Your task to perform on an android device: turn on sleep mode Image 0: 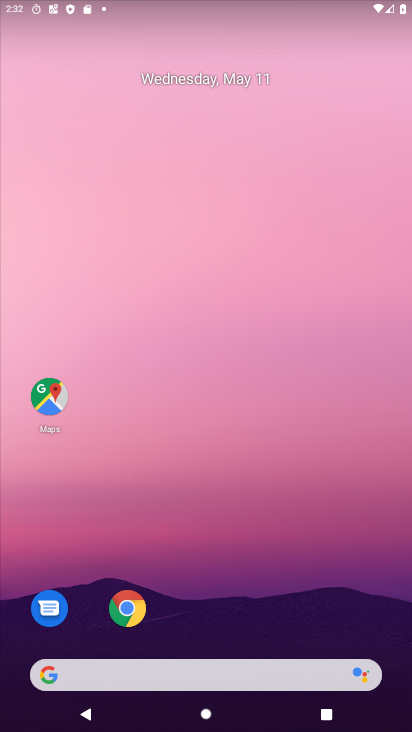
Step 0: drag from (263, 625) to (316, 177)
Your task to perform on an android device: turn on sleep mode Image 1: 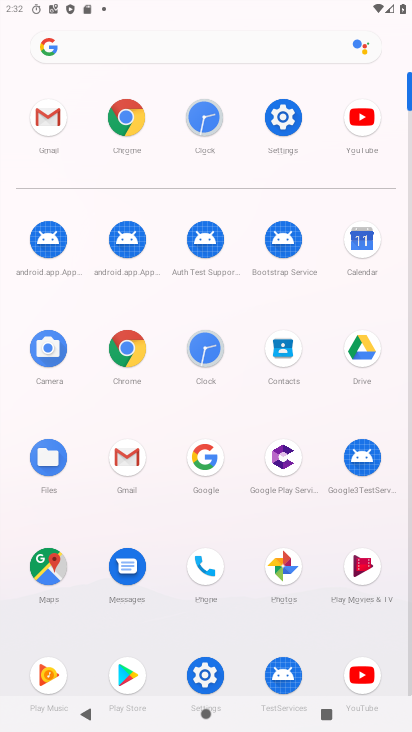
Step 1: click (282, 120)
Your task to perform on an android device: turn on sleep mode Image 2: 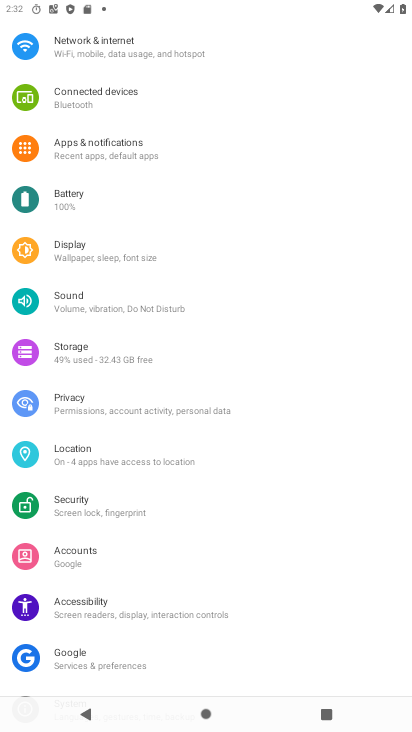
Step 2: click (118, 246)
Your task to perform on an android device: turn on sleep mode Image 3: 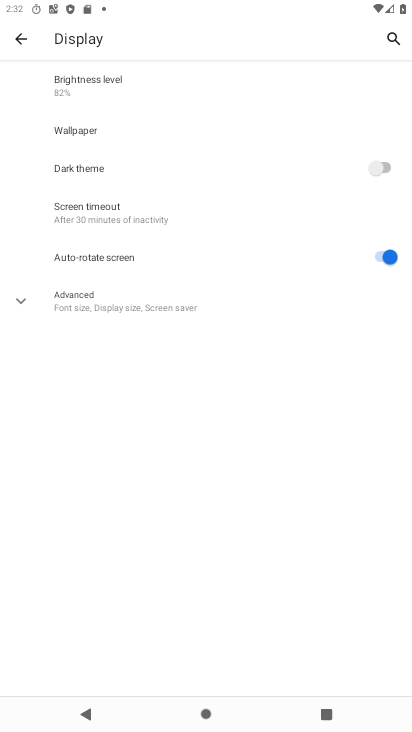
Step 3: click (102, 295)
Your task to perform on an android device: turn on sleep mode Image 4: 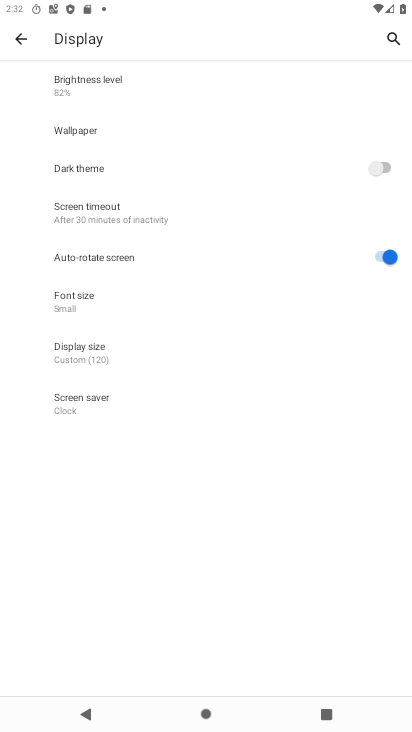
Step 4: task complete